Your task to perform on an android device: turn off wifi Image 0: 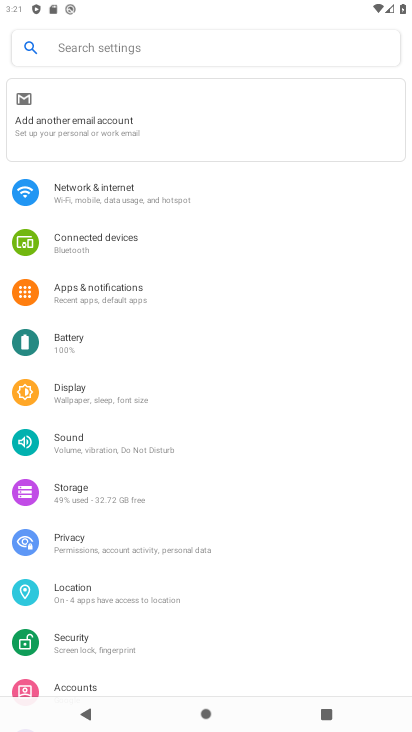
Step 0: click (189, 192)
Your task to perform on an android device: turn off wifi Image 1: 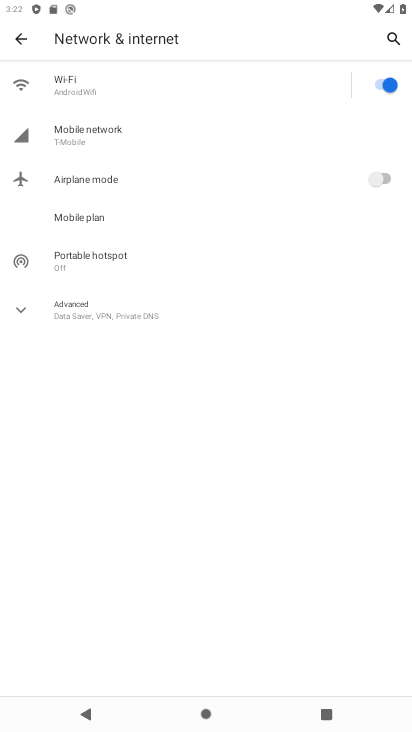
Step 1: click (374, 80)
Your task to perform on an android device: turn off wifi Image 2: 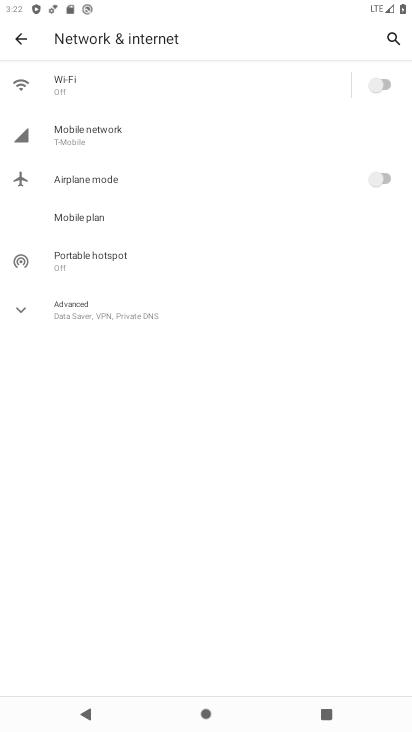
Step 2: task complete